Your task to perform on an android device: make emails show in primary in the gmail app Image 0: 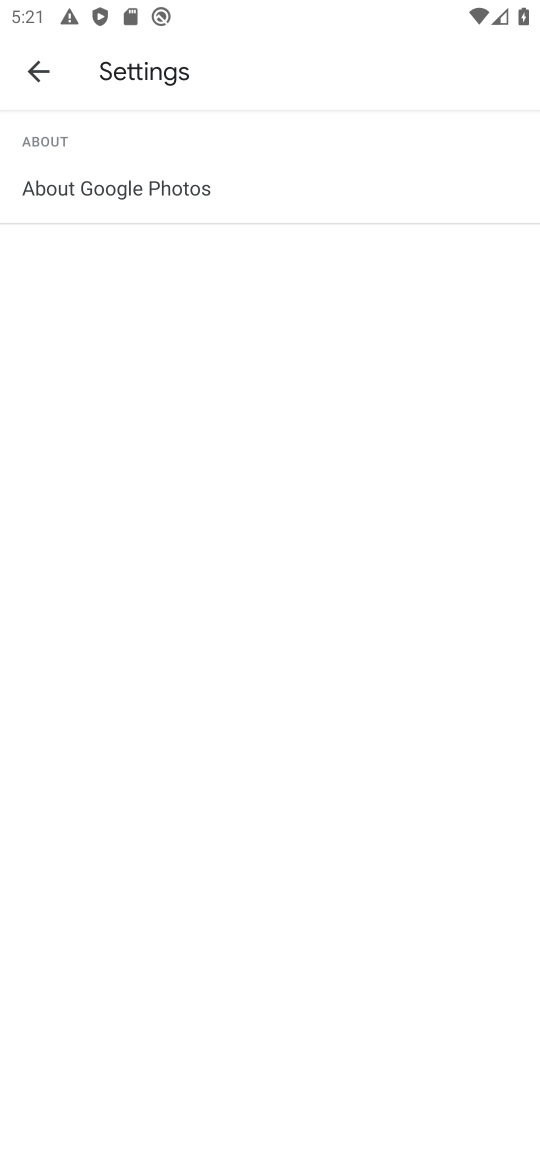
Step 0: press home button
Your task to perform on an android device: make emails show in primary in the gmail app Image 1: 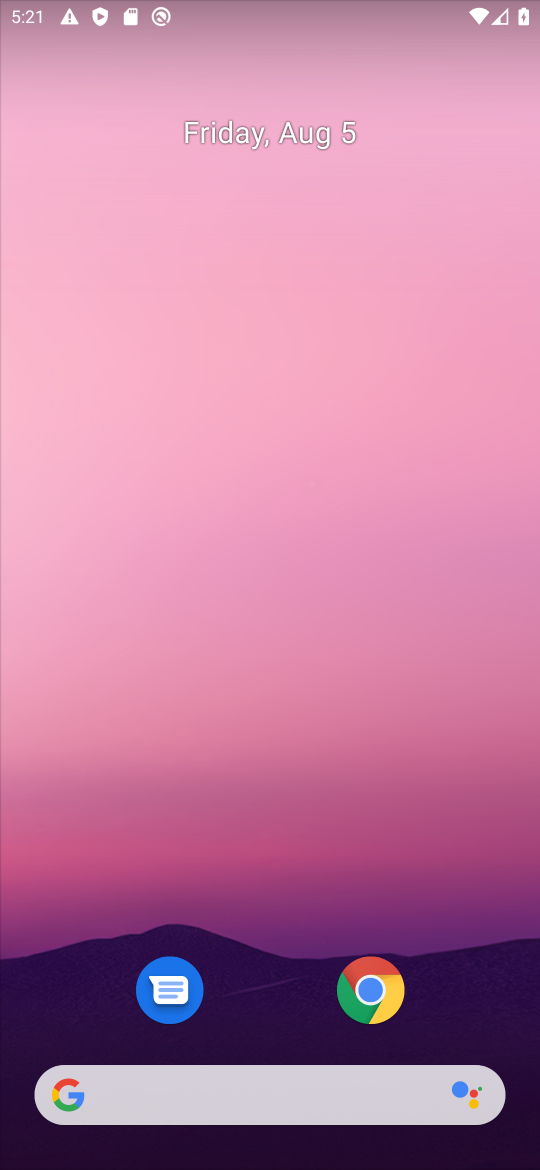
Step 1: drag from (243, 1004) to (207, 570)
Your task to perform on an android device: make emails show in primary in the gmail app Image 2: 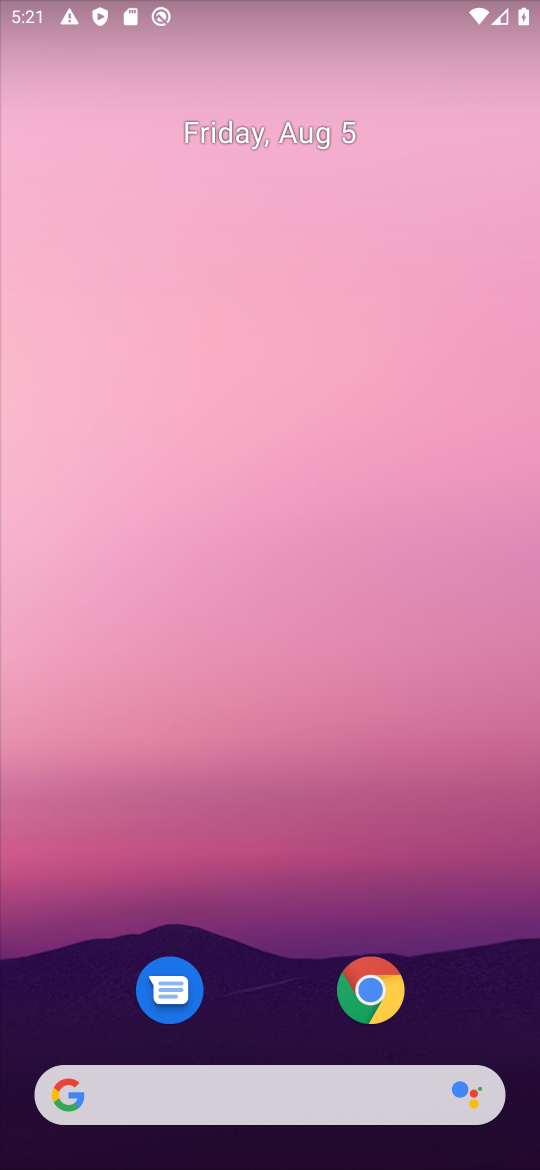
Step 2: drag from (292, 1044) to (230, 357)
Your task to perform on an android device: make emails show in primary in the gmail app Image 3: 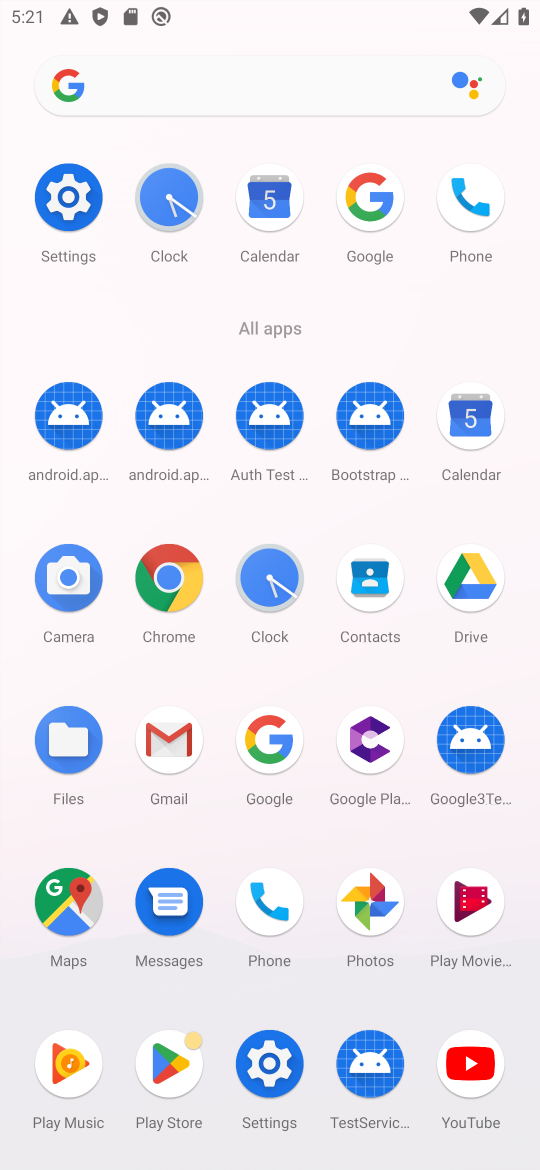
Step 3: click (161, 751)
Your task to perform on an android device: make emails show in primary in the gmail app Image 4: 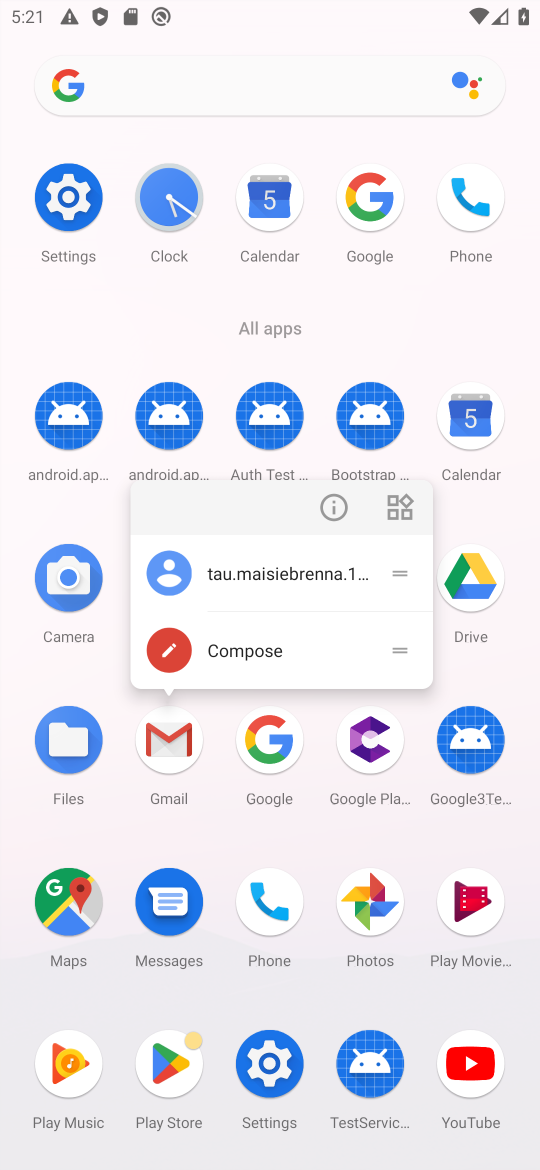
Step 4: click (161, 746)
Your task to perform on an android device: make emails show in primary in the gmail app Image 5: 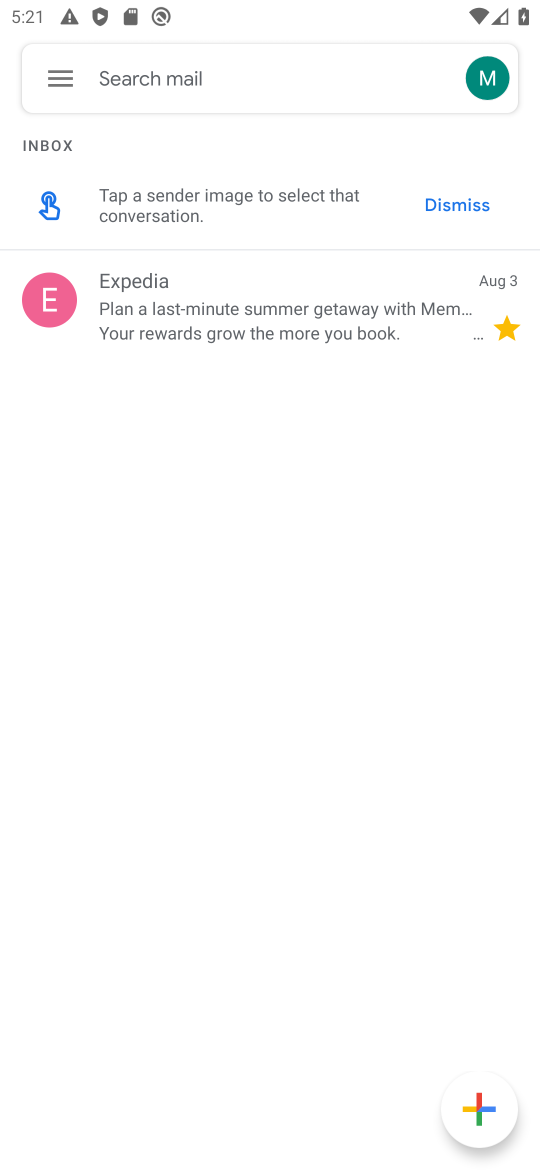
Step 5: click (72, 72)
Your task to perform on an android device: make emails show in primary in the gmail app Image 6: 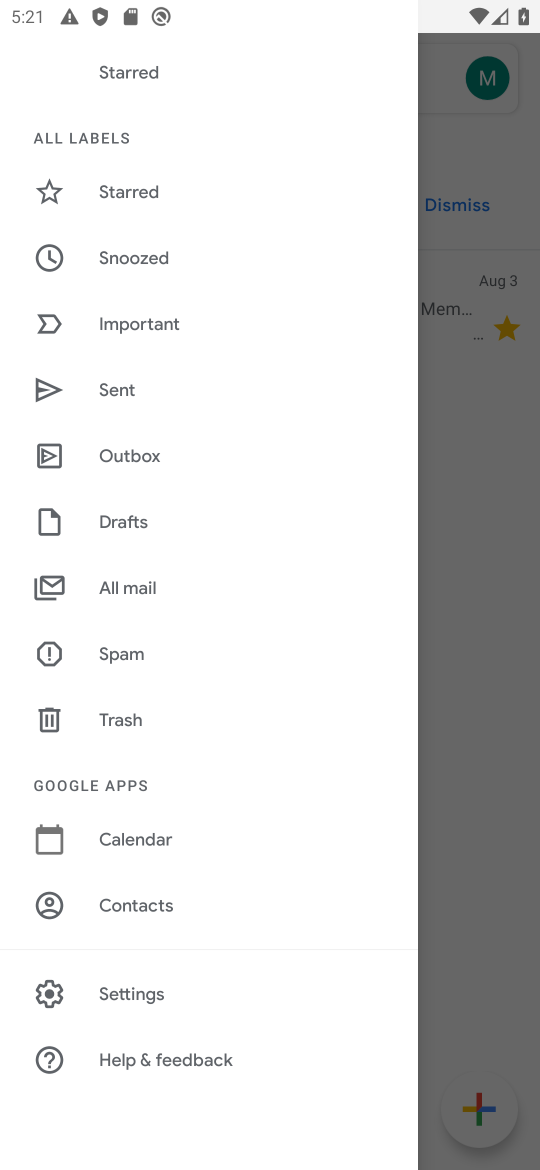
Step 6: click (121, 1009)
Your task to perform on an android device: make emails show in primary in the gmail app Image 7: 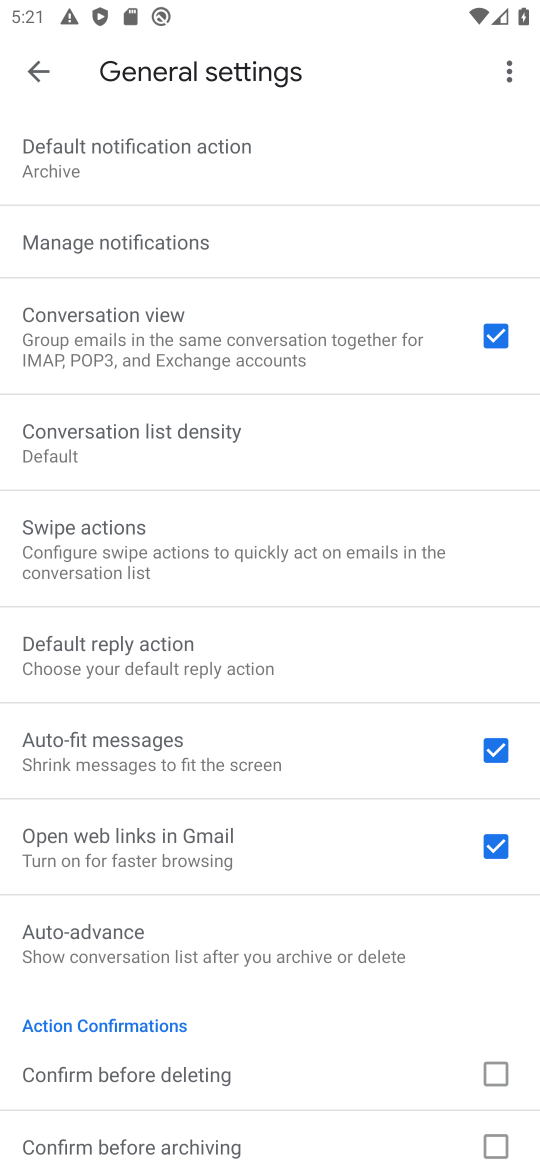
Step 7: click (41, 62)
Your task to perform on an android device: make emails show in primary in the gmail app Image 8: 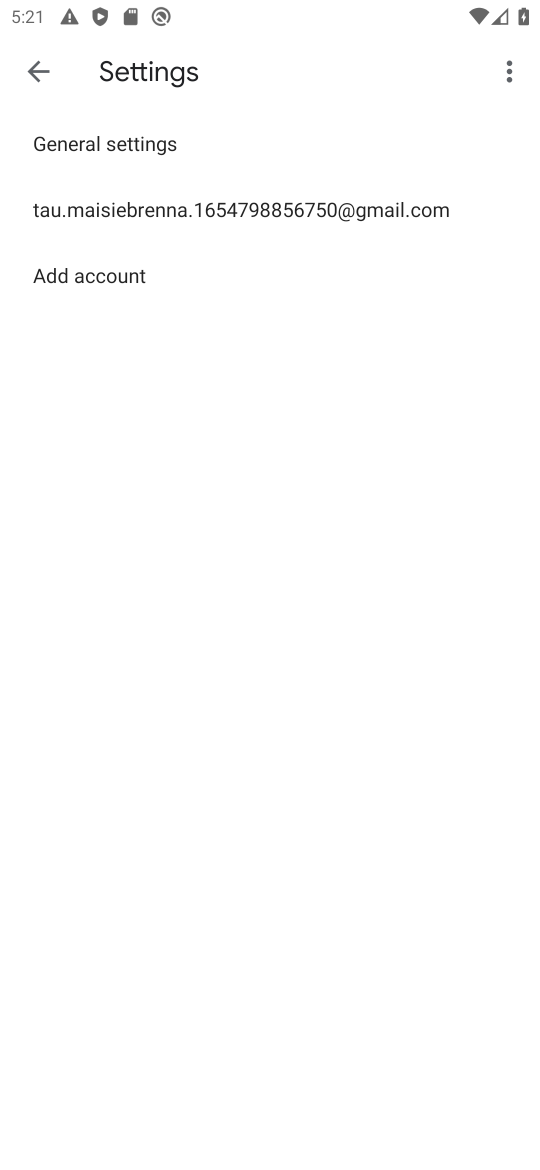
Step 8: click (141, 208)
Your task to perform on an android device: make emails show in primary in the gmail app Image 9: 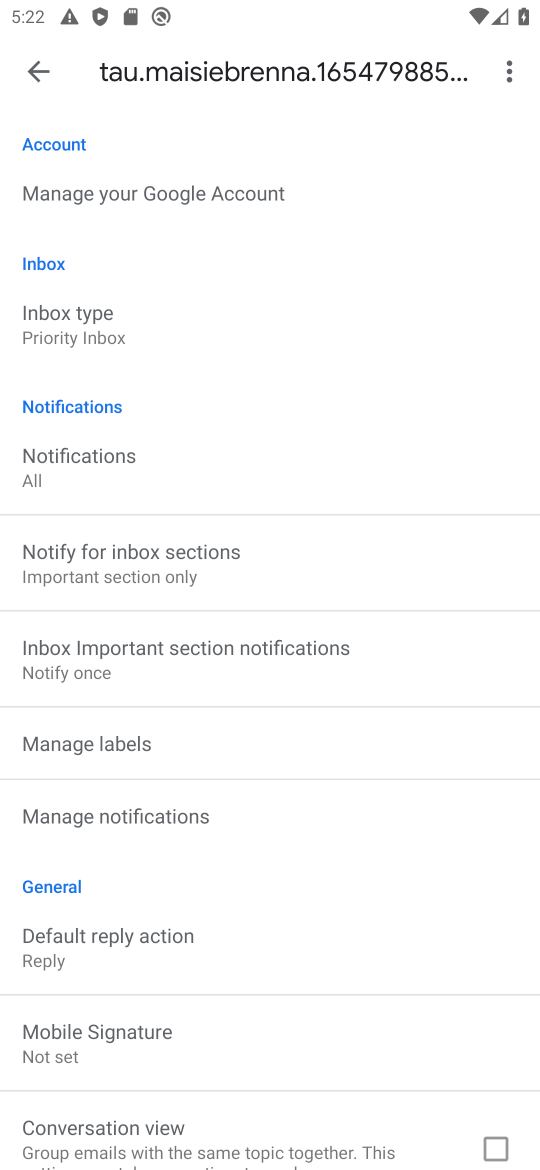
Step 9: click (78, 322)
Your task to perform on an android device: make emails show in primary in the gmail app Image 10: 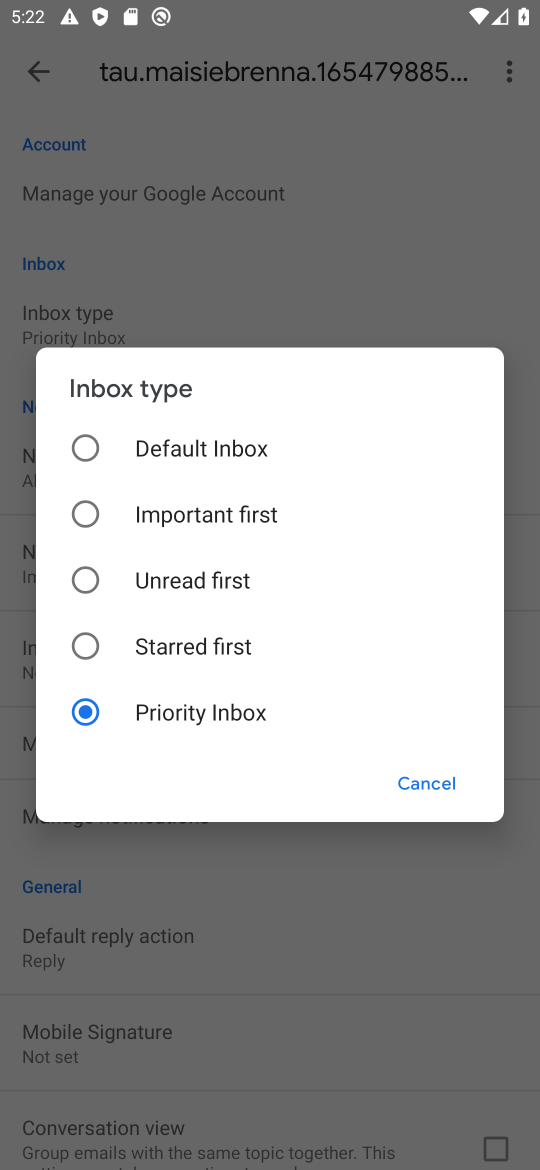
Step 10: click (155, 446)
Your task to perform on an android device: make emails show in primary in the gmail app Image 11: 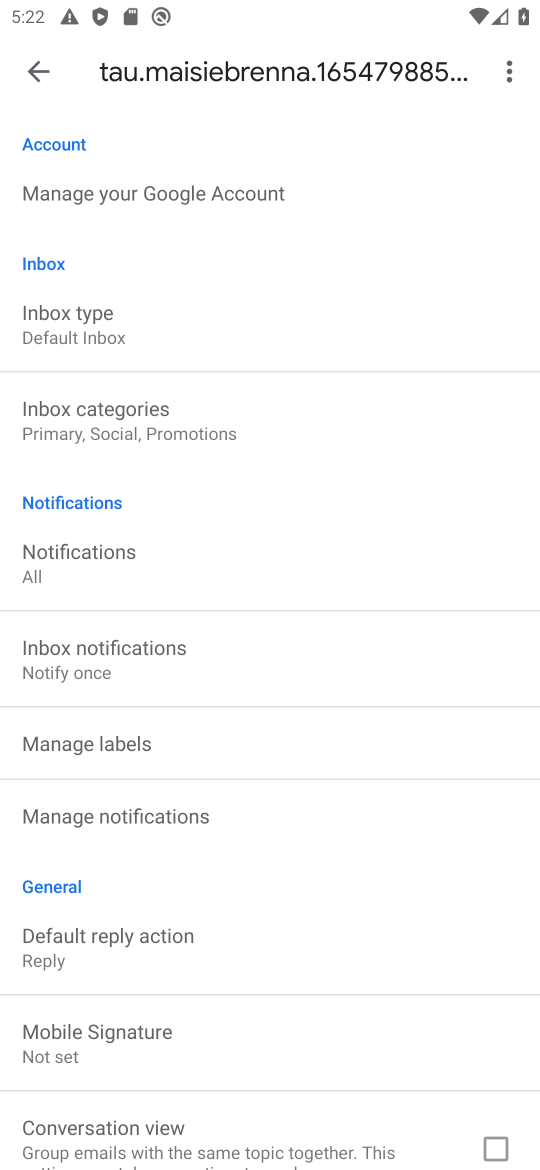
Step 11: click (63, 422)
Your task to perform on an android device: make emails show in primary in the gmail app Image 12: 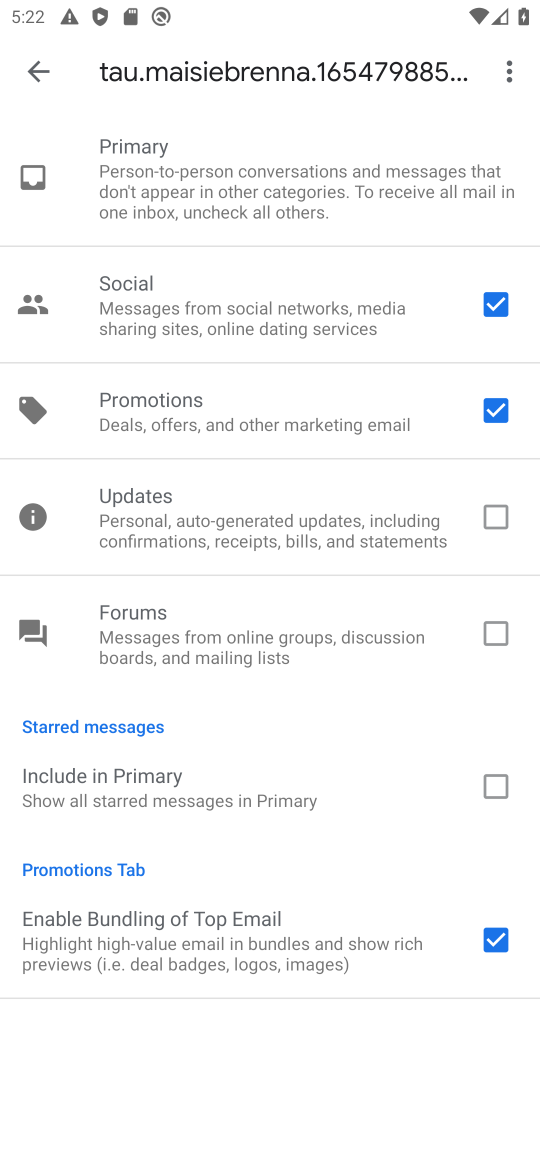
Step 12: click (490, 410)
Your task to perform on an android device: make emails show in primary in the gmail app Image 13: 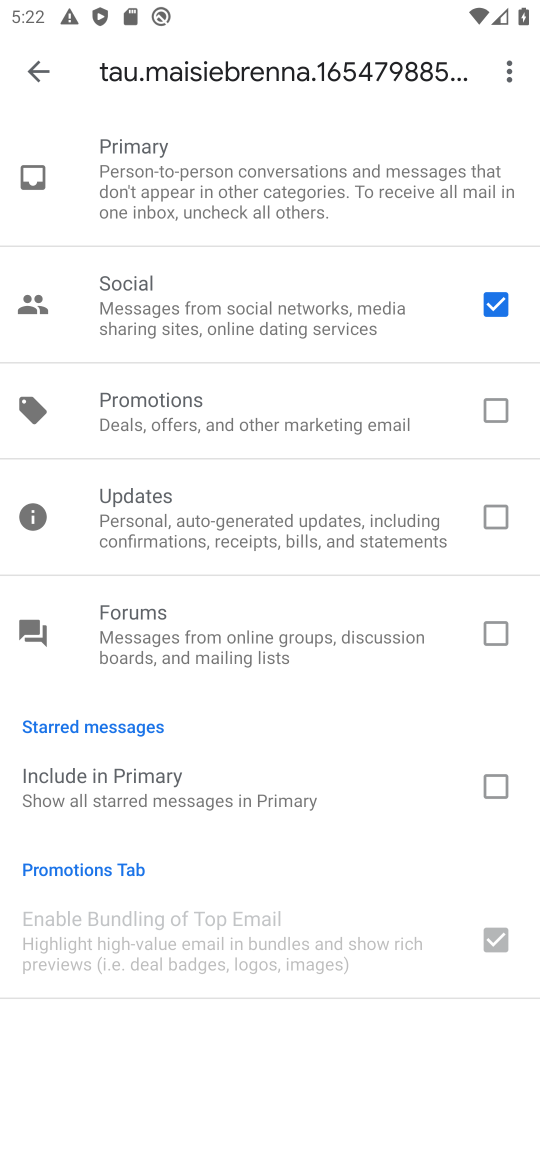
Step 13: click (490, 299)
Your task to perform on an android device: make emails show in primary in the gmail app Image 14: 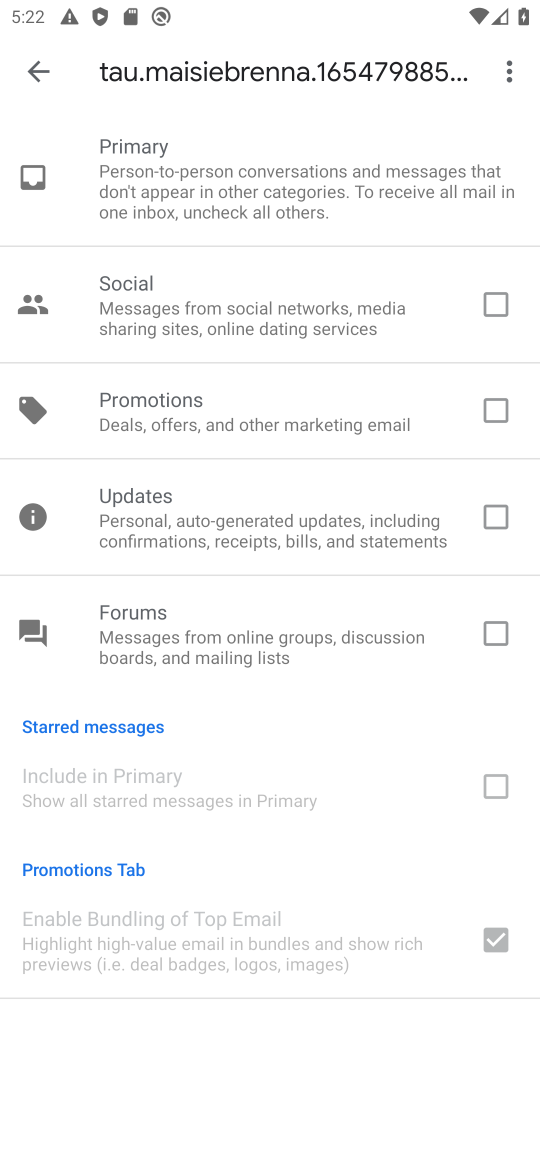
Step 14: click (40, 66)
Your task to perform on an android device: make emails show in primary in the gmail app Image 15: 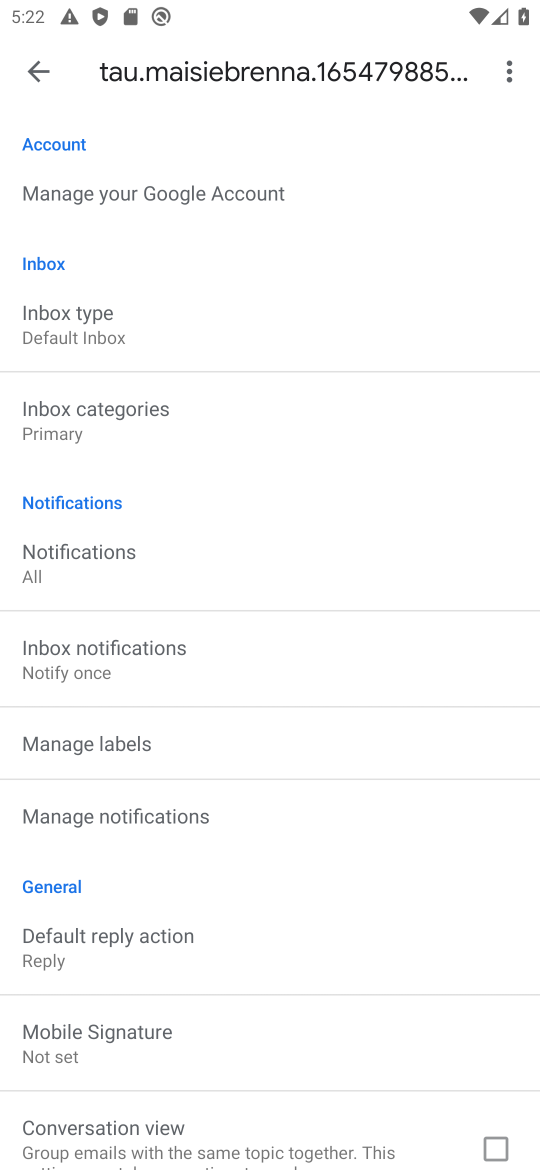
Step 15: task complete